Your task to perform on an android device: toggle airplane mode Image 0: 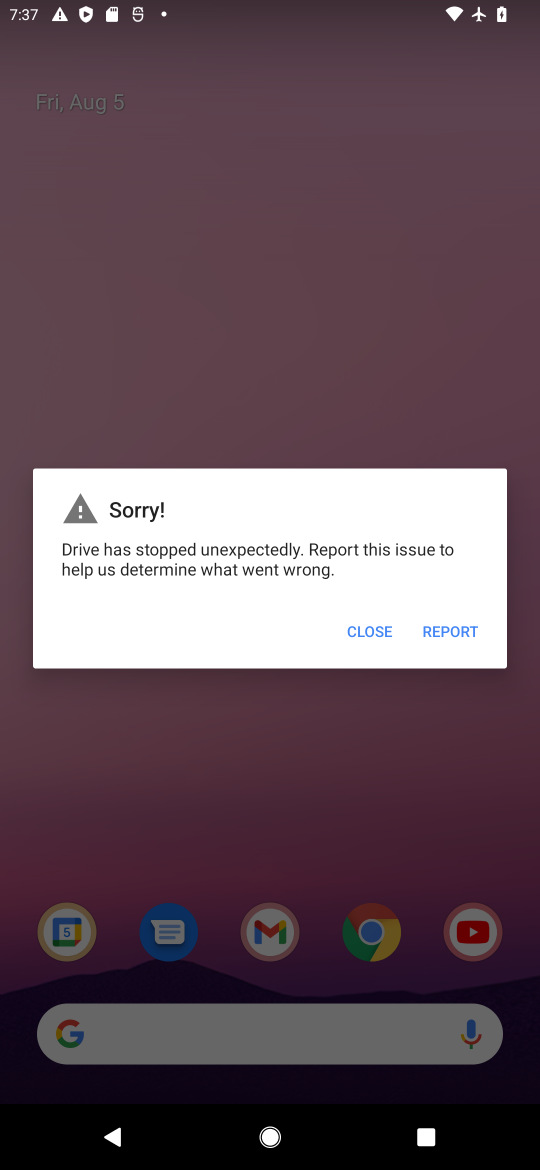
Step 0: press home button
Your task to perform on an android device: toggle airplane mode Image 1: 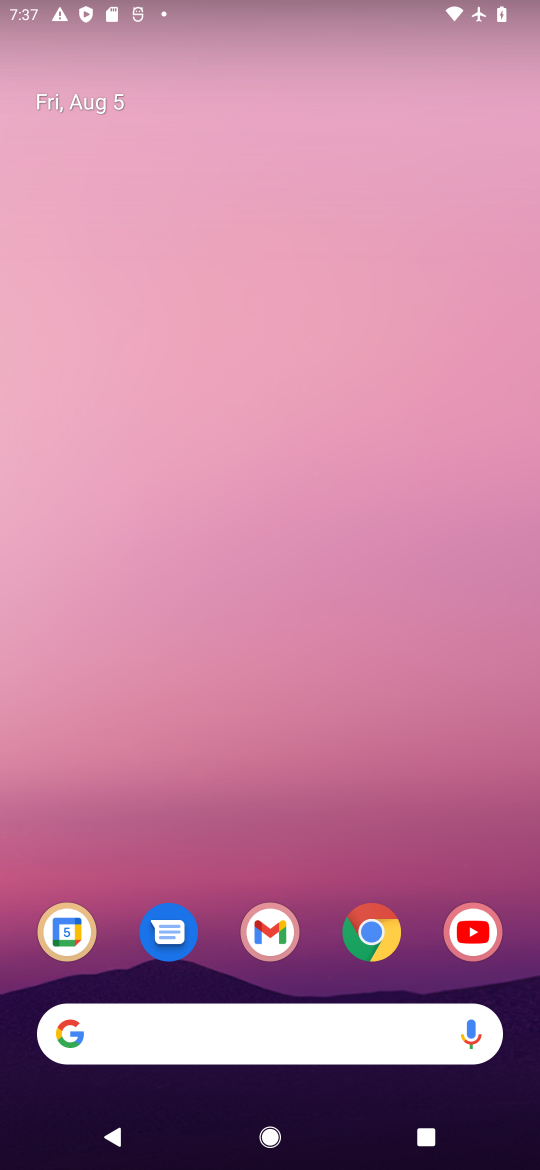
Step 1: drag from (195, 1036) to (249, 240)
Your task to perform on an android device: toggle airplane mode Image 2: 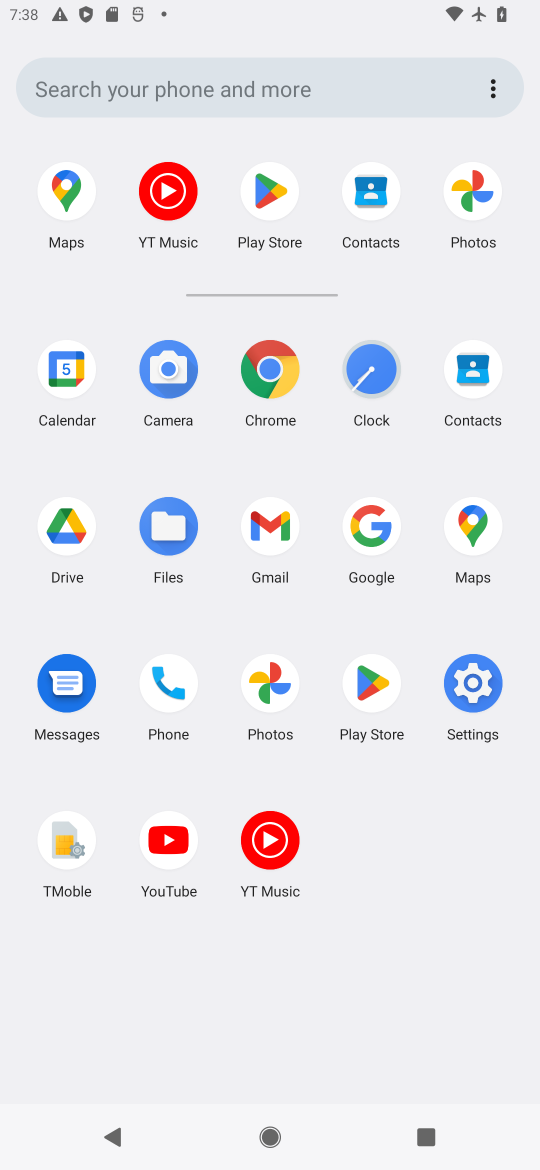
Step 2: click (474, 681)
Your task to perform on an android device: toggle airplane mode Image 3: 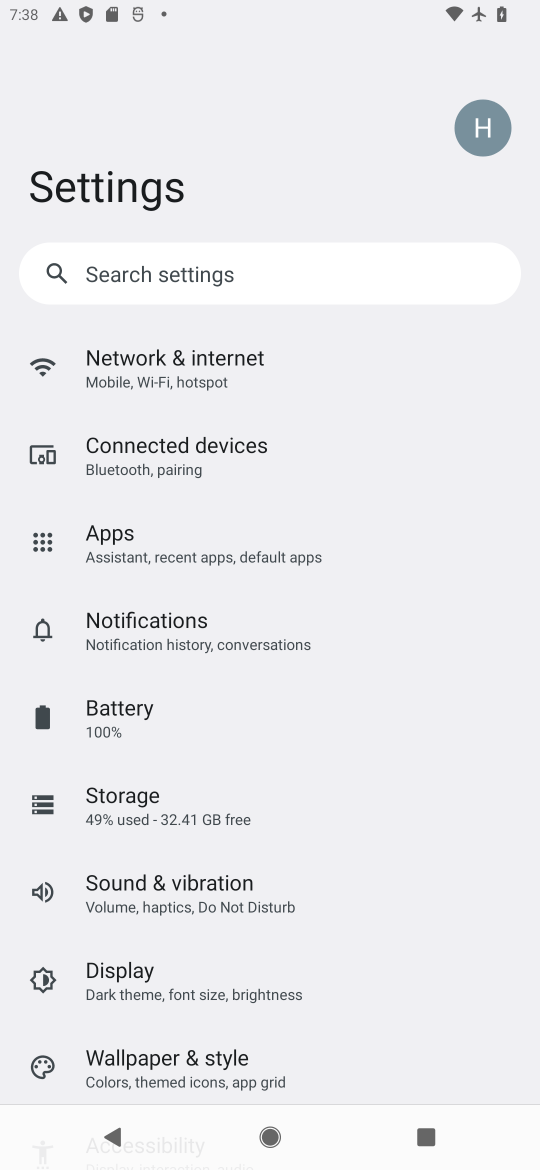
Step 3: click (166, 358)
Your task to perform on an android device: toggle airplane mode Image 4: 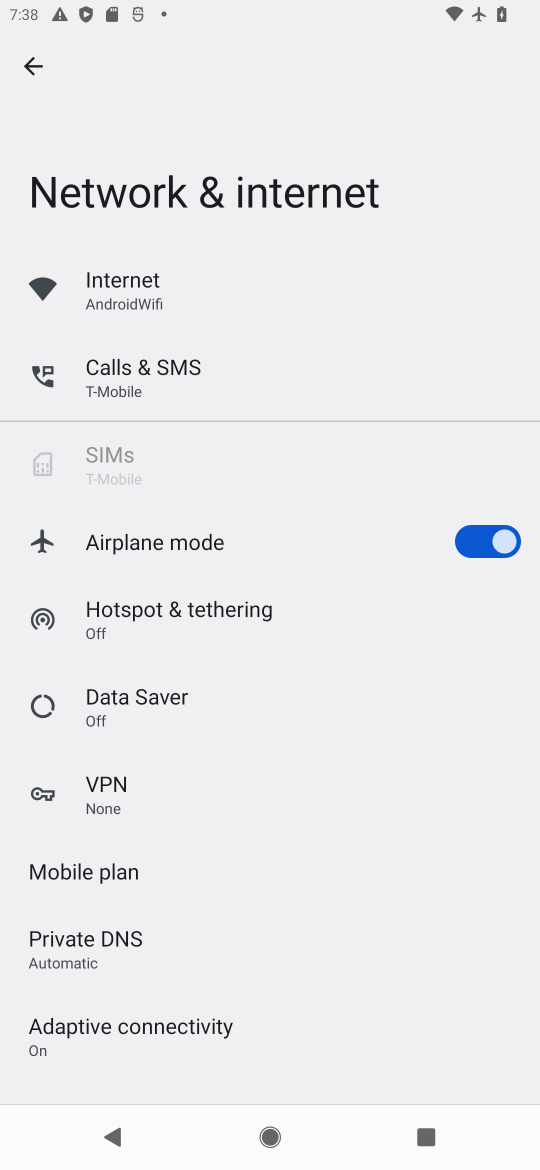
Step 4: click (494, 537)
Your task to perform on an android device: toggle airplane mode Image 5: 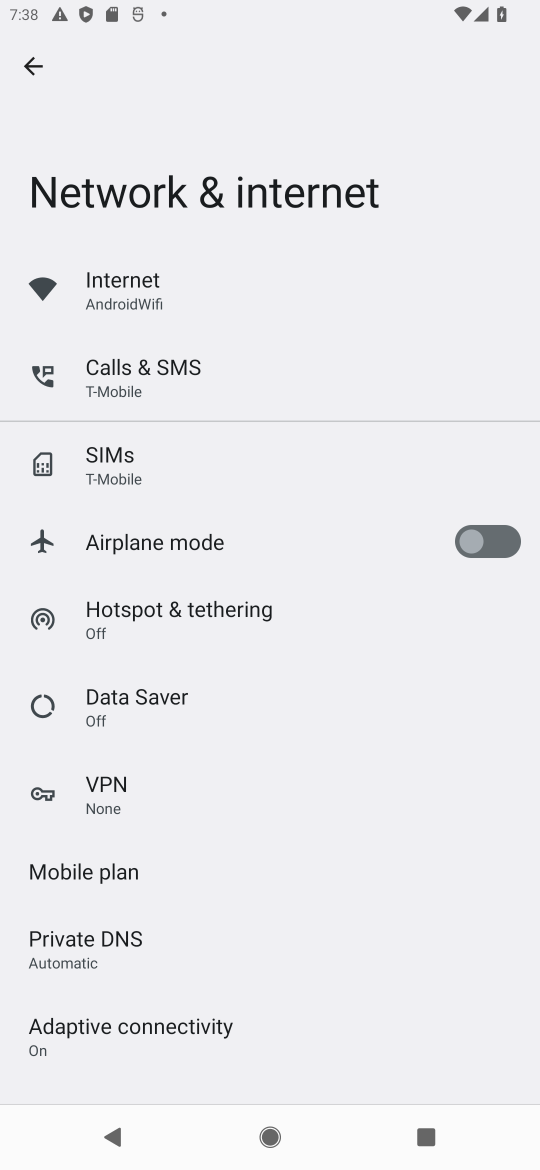
Step 5: task complete